Your task to perform on an android device: Open calendar and show me the second week of next month Image 0: 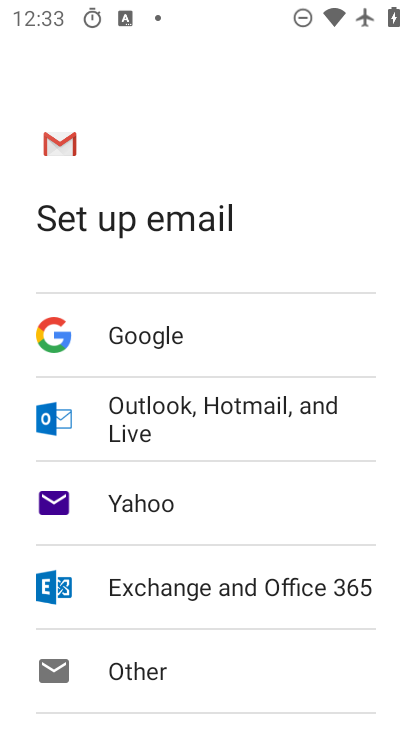
Step 0: press home button
Your task to perform on an android device: Open calendar and show me the second week of next month Image 1: 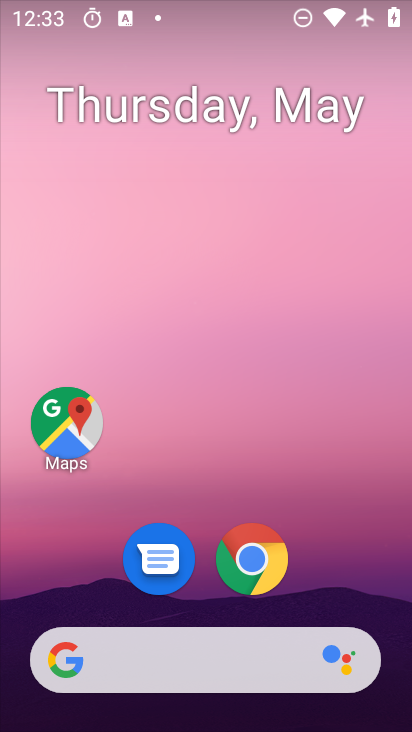
Step 1: drag from (225, 624) to (265, 214)
Your task to perform on an android device: Open calendar and show me the second week of next month Image 2: 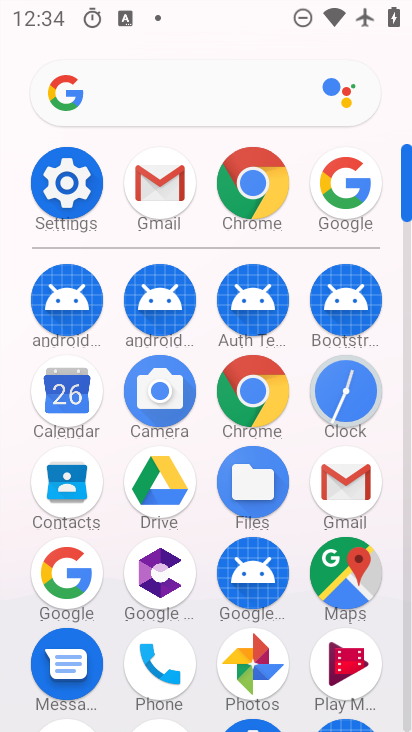
Step 2: click (66, 408)
Your task to perform on an android device: Open calendar and show me the second week of next month Image 3: 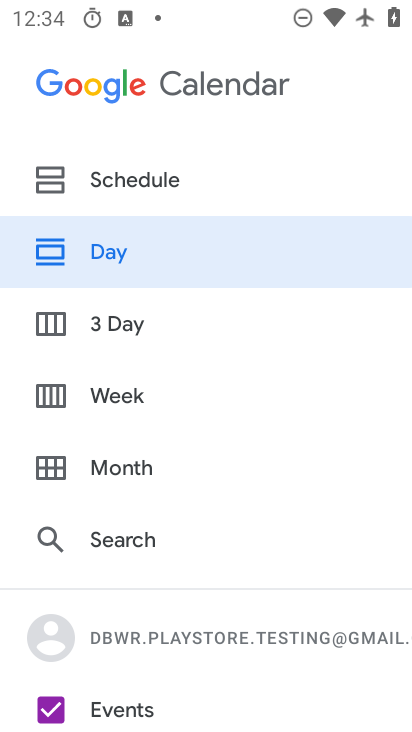
Step 3: press back button
Your task to perform on an android device: Open calendar and show me the second week of next month Image 4: 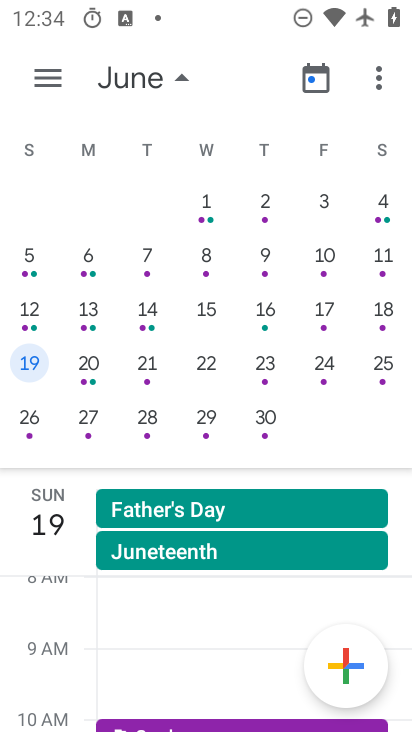
Step 4: click (38, 368)
Your task to perform on an android device: Open calendar and show me the second week of next month Image 5: 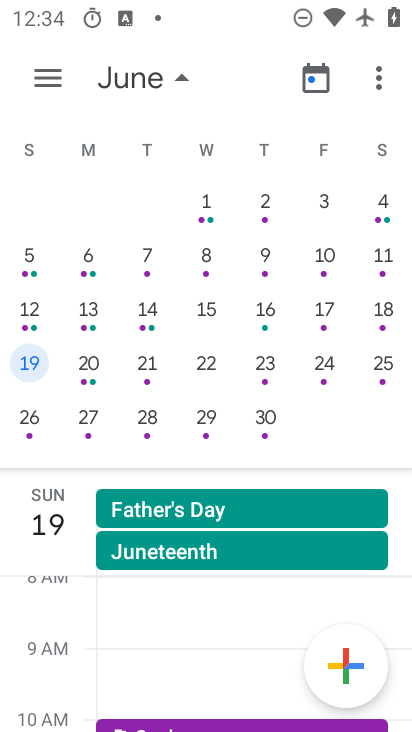
Step 5: task complete